Your task to perform on an android device: turn off priority inbox in the gmail app Image 0: 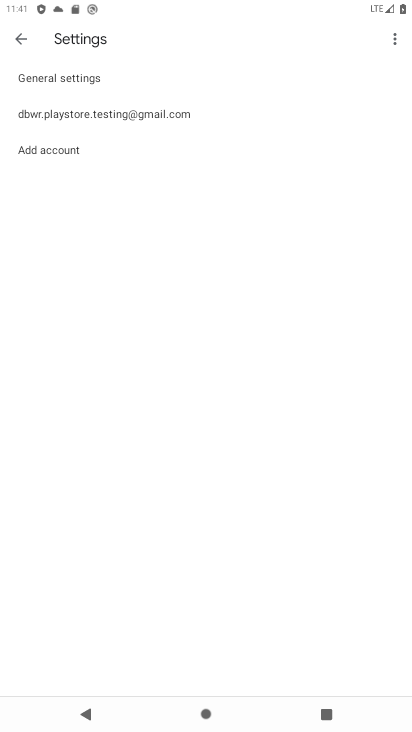
Step 0: click (134, 116)
Your task to perform on an android device: turn off priority inbox in the gmail app Image 1: 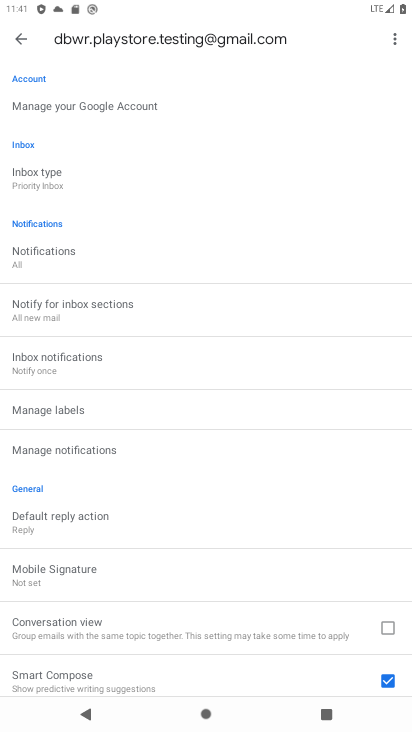
Step 1: click (53, 180)
Your task to perform on an android device: turn off priority inbox in the gmail app Image 2: 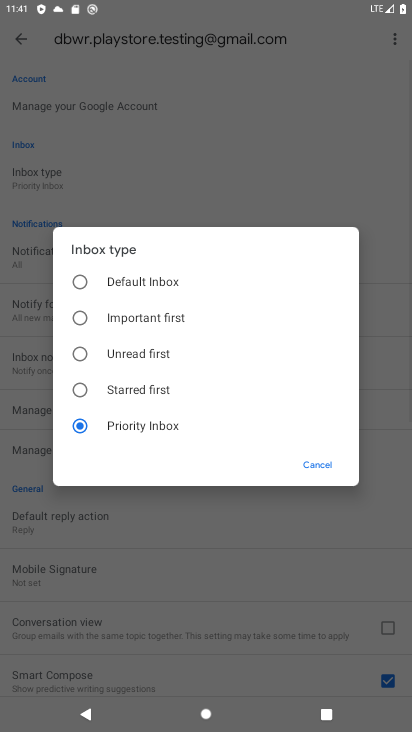
Step 2: click (94, 350)
Your task to perform on an android device: turn off priority inbox in the gmail app Image 3: 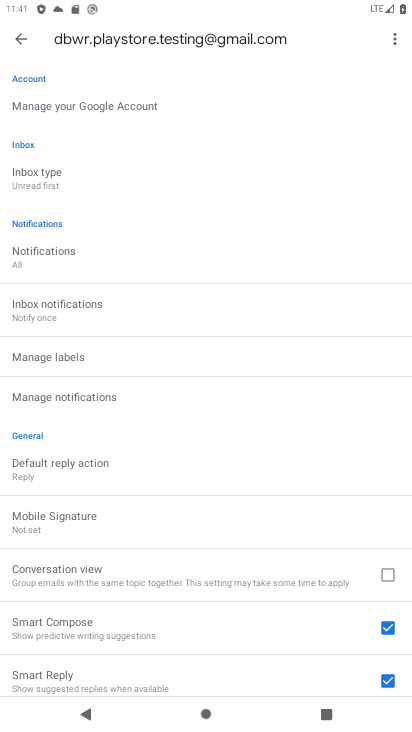
Step 3: task complete